Your task to perform on an android device: Open Google Image 0: 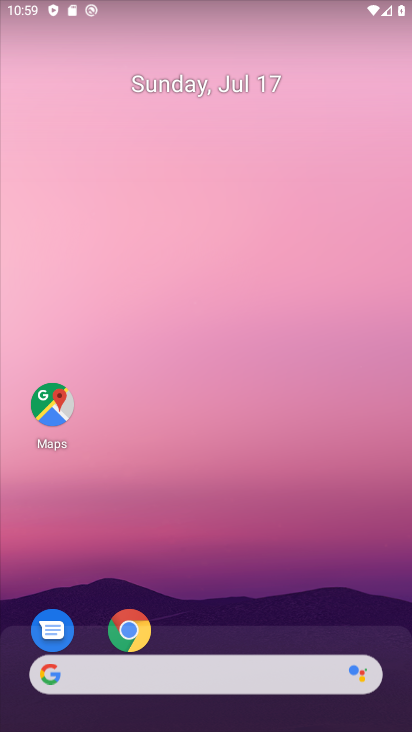
Step 0: click (121, 691)
Your task to perform on an android device: Open Google Image 1: 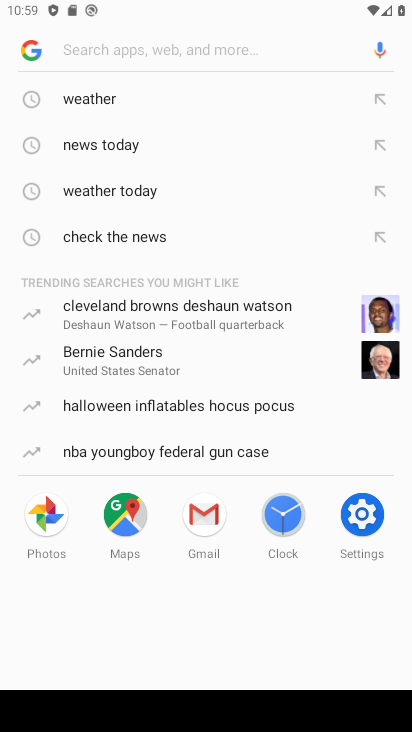
Step 1: click (32, 45)
Your task to perform on an android device: Open Google Image 2: 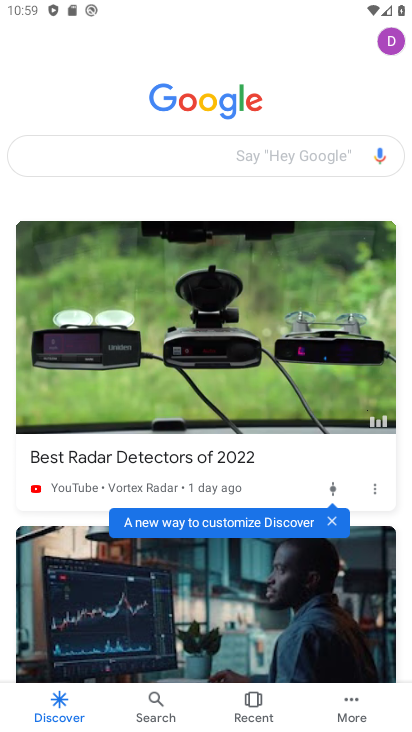
Step 2: task complete